Your task to perform on an android device: turn off javascript in the chrome app Image 0: 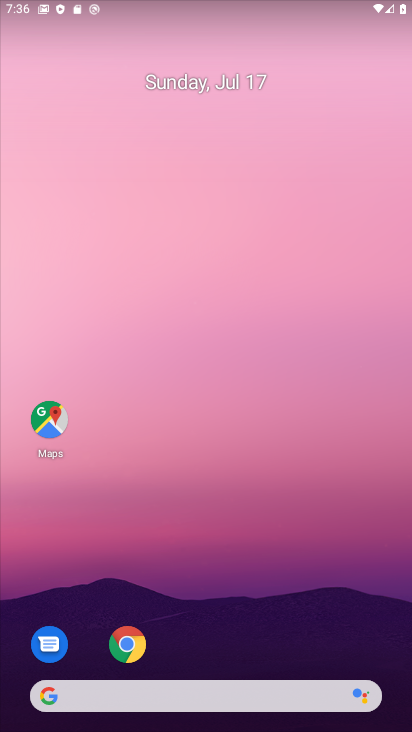
Step 0: drag from (273, 486) to (265, 21)
Your task to perform on an android device: turn off javascript in the chrome app Image 1: 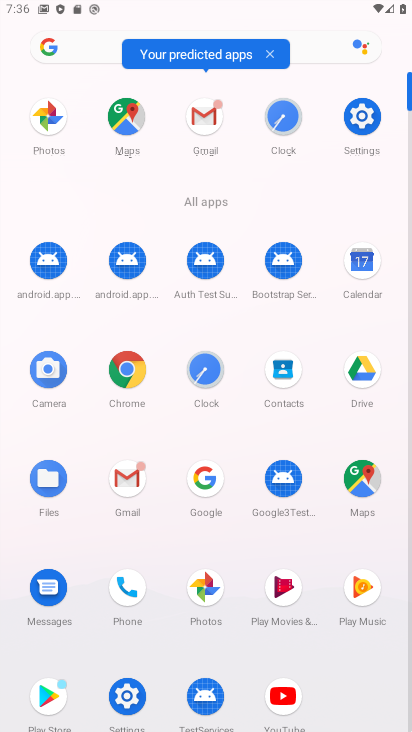
Step 1: click (131, 371)
Your task to perform on an android device: turn off javascript in the chrome app Image 2: 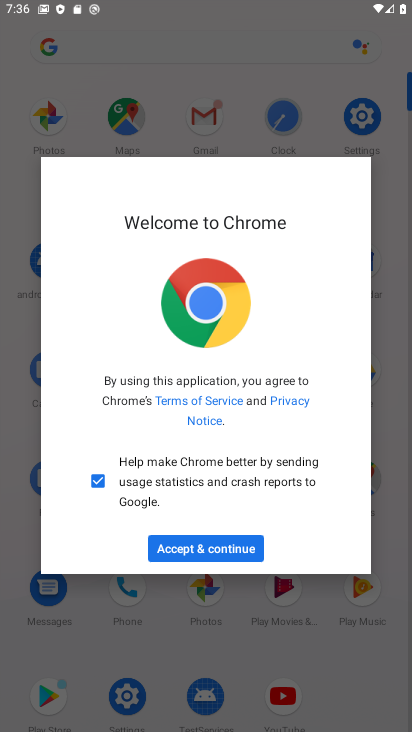
Step 2: click (164, 546)
Your task to perform on an android device: turn off javascript in the chrome app Image 3: 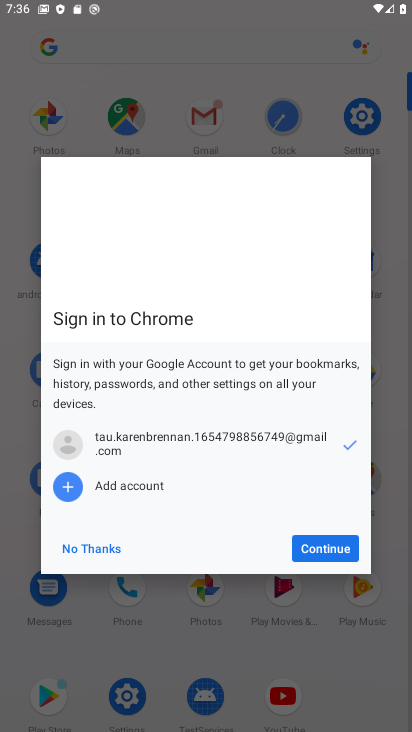
Step 3: click (73, 548)
Your task to perform on an android device: turn off javascript in the chrome app Image 4: 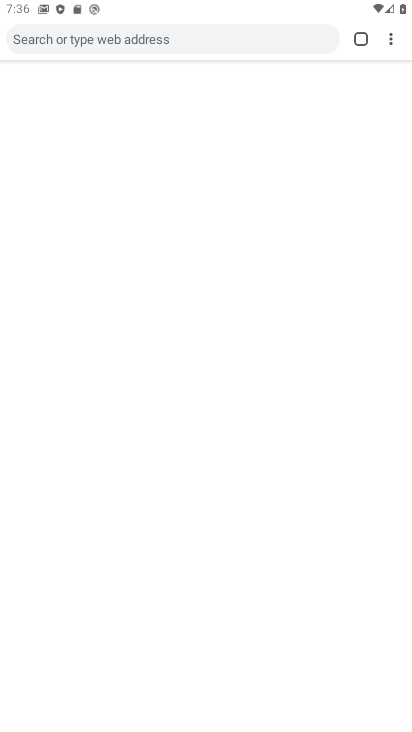
Step 4: click (392, 35)
Your task to perform on an android device: turn off javascript in the chrome app Image 5: 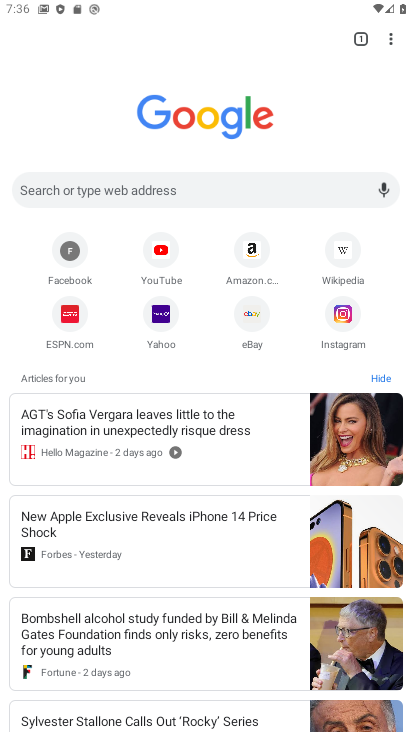
Step 5: drag from (389, 47) to (287, 319)
Your task to perform on an android device: turn off javascript in the chrome app Image 6: 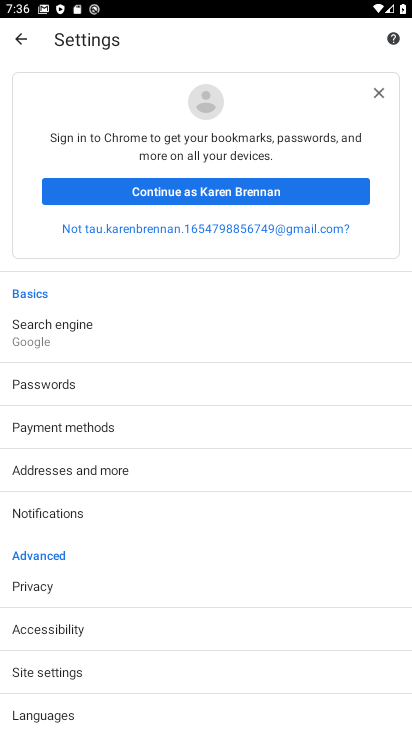
Step 6: click (80, 670)
Your task to perform on an android device: turn off javascript in the chrome app Image 7: 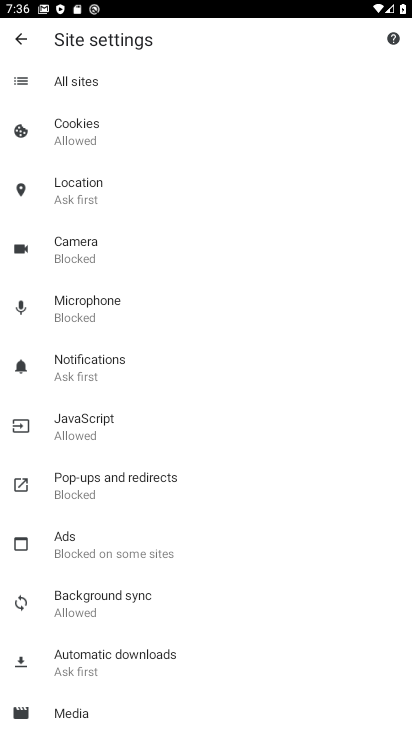
Step 7: click (57, 429)
Your task to perform on an android device: turn off javascript in the chrome app Image 8: 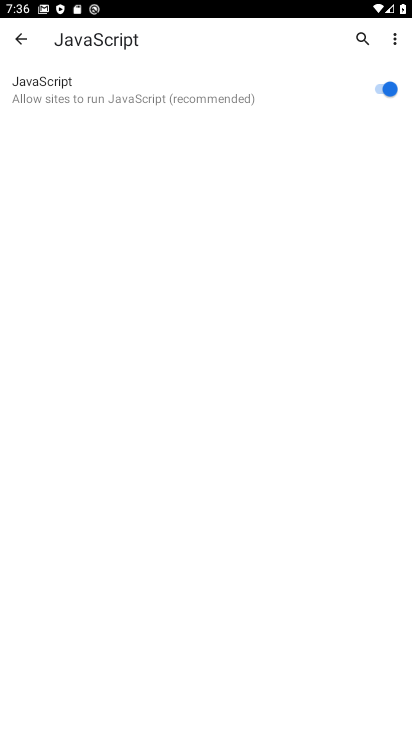
Step 8: click (385, 94)
Your task to perform on an android device: turn off javascript in the chrome app Image 9: 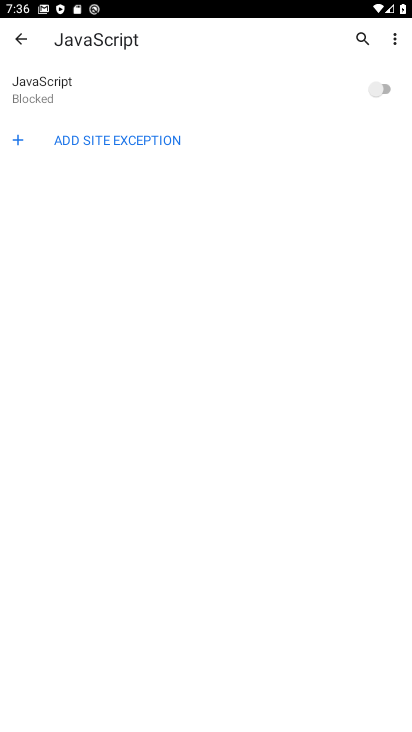
Step 9: task complete